Your task to perform on an android device: Search for "razer blackwidow" on bestbuy, select the first entry, and add it to the cart. Image 0: 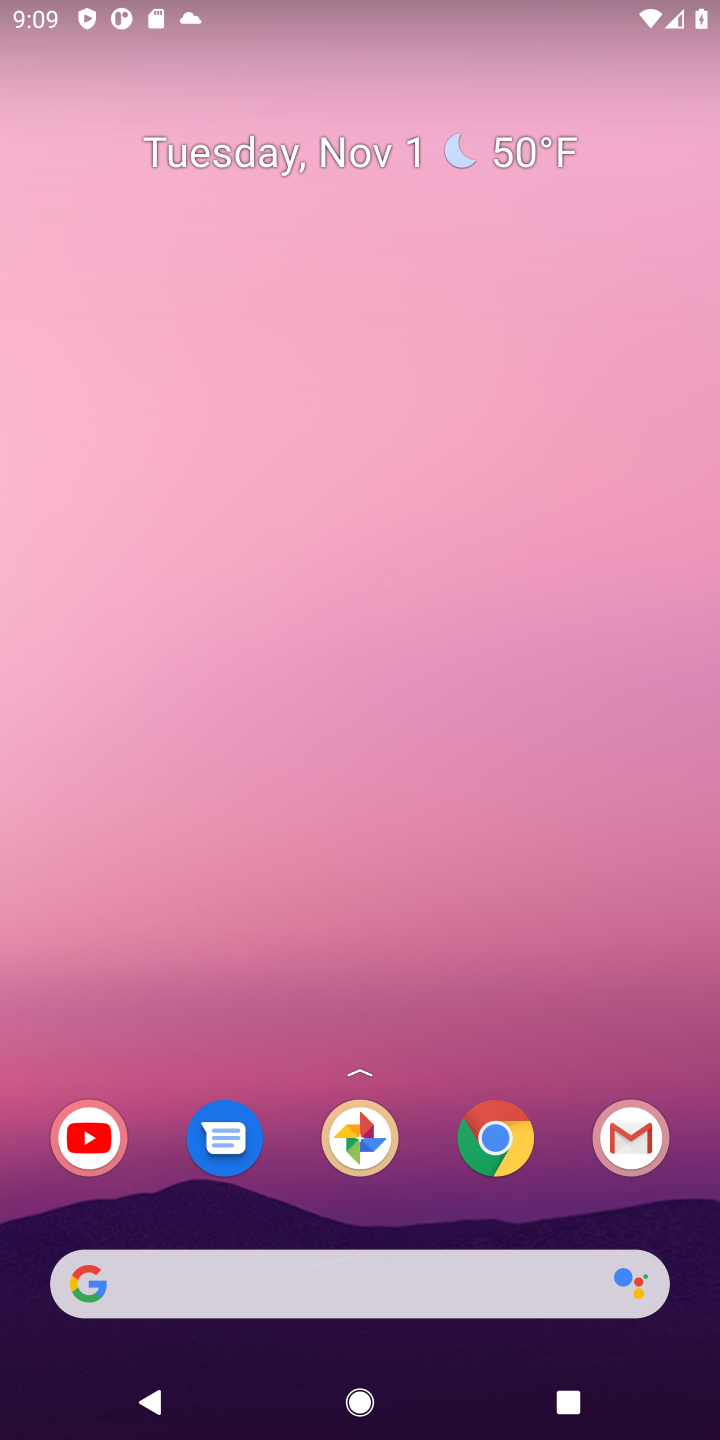
Step 0: click (496, 1141)
Your task to perform on an android device: Search for "razer blackwidow" on bestbuy, select the first entry, and add it to the cart. Image 1: 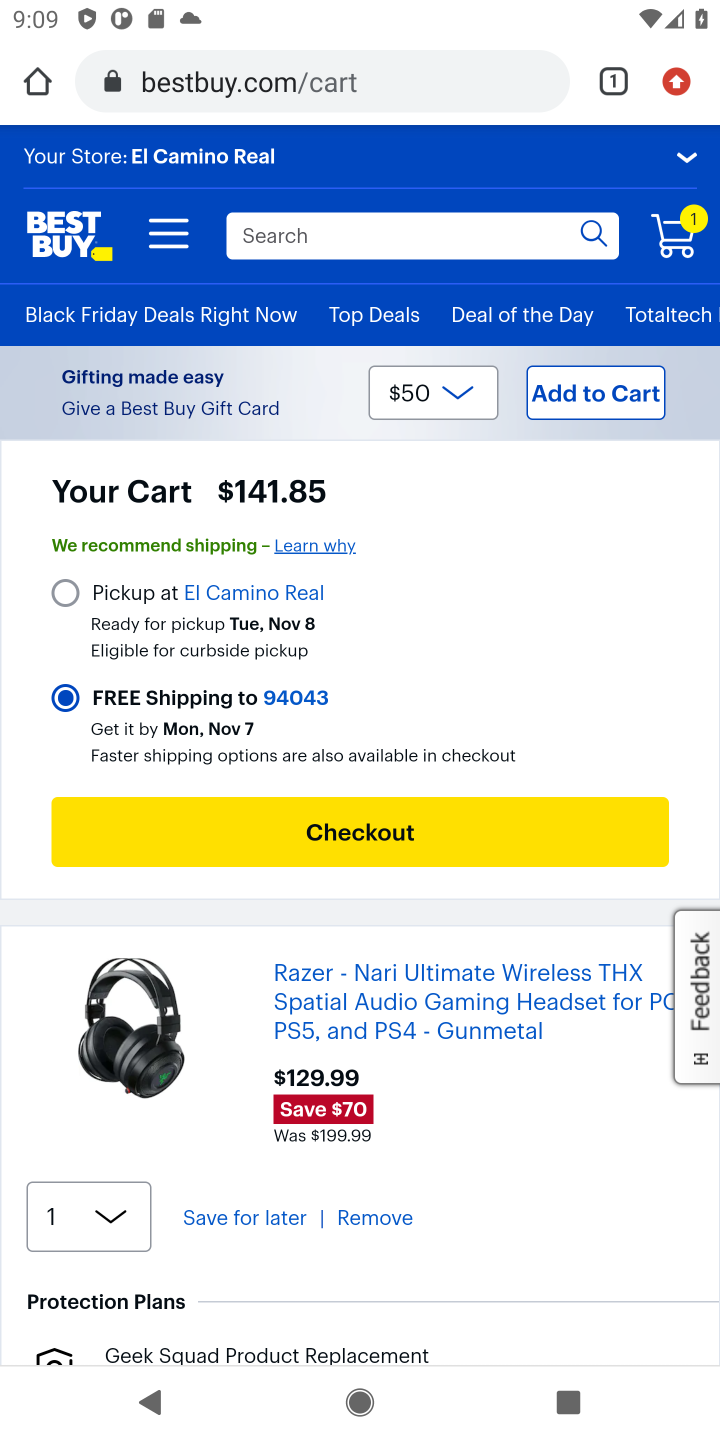
Step 1: click (348, 93)
Your task to perform on an android device: Search for "razer blackwidow" on bestbuy, select the first entry, and add it to the cart. Image 2: 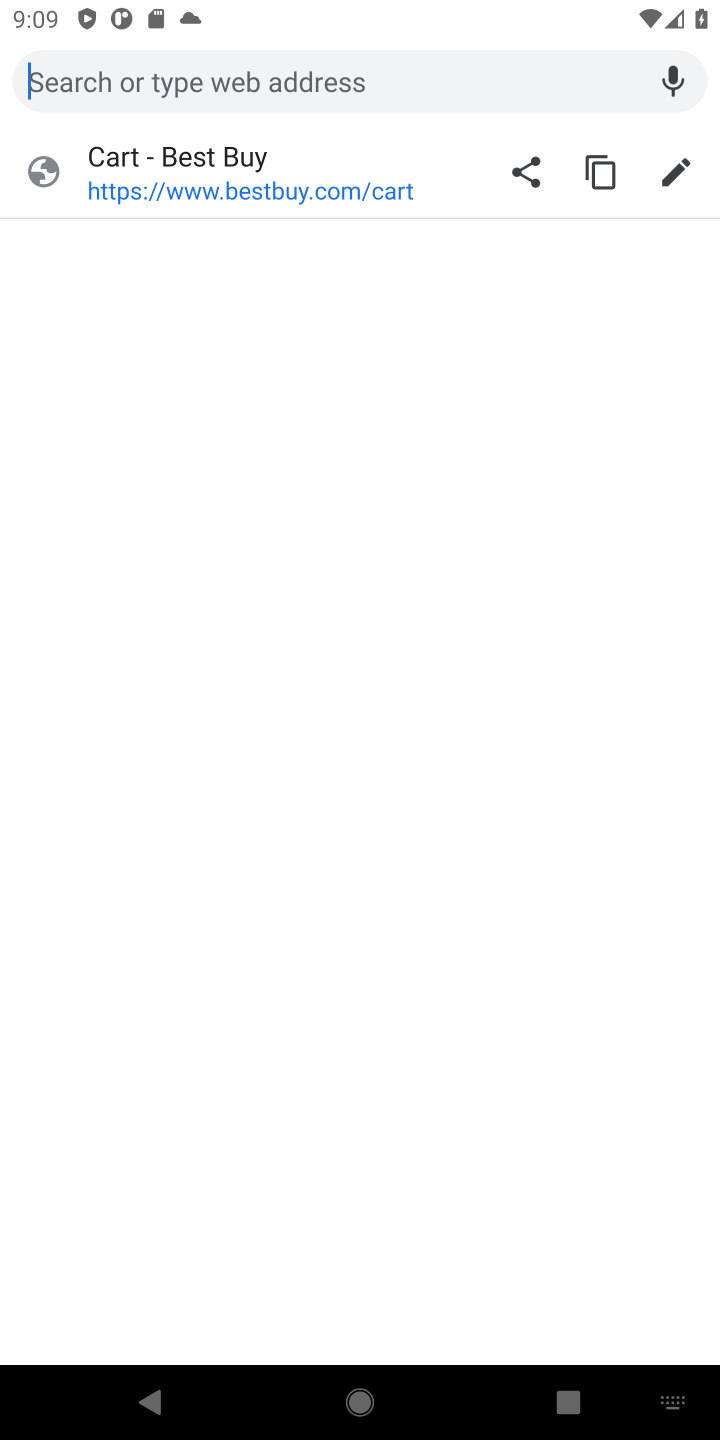
Step 2: type "bestbuy"
Your task to perform on an android device: Search for "razer blackwidow" on bestbuy, select the first entry, and add it to the cart. Image 3: 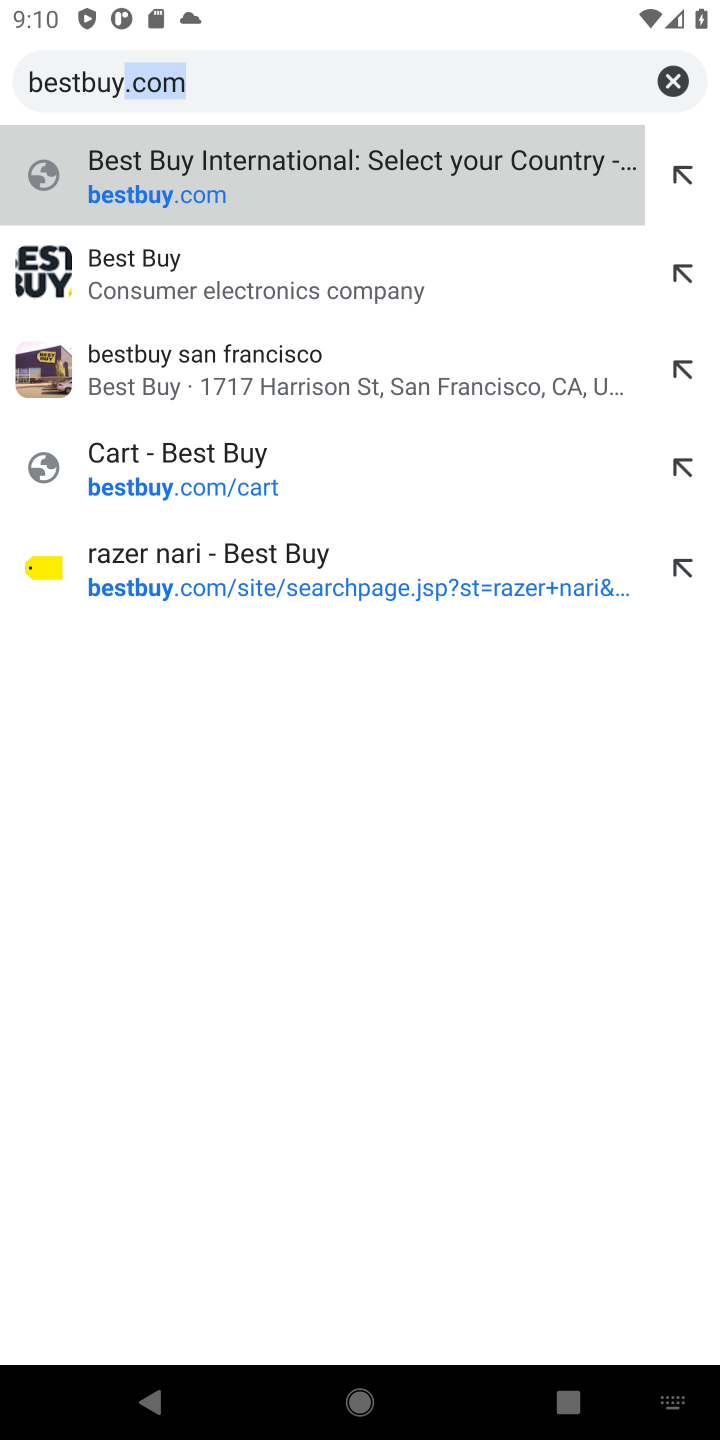
Step 3: click (156, 288)
Your task to perform on an android device: Search for "razer blackwidow" on bestbuy, select the first entry, and add it to the cart. Image 4: 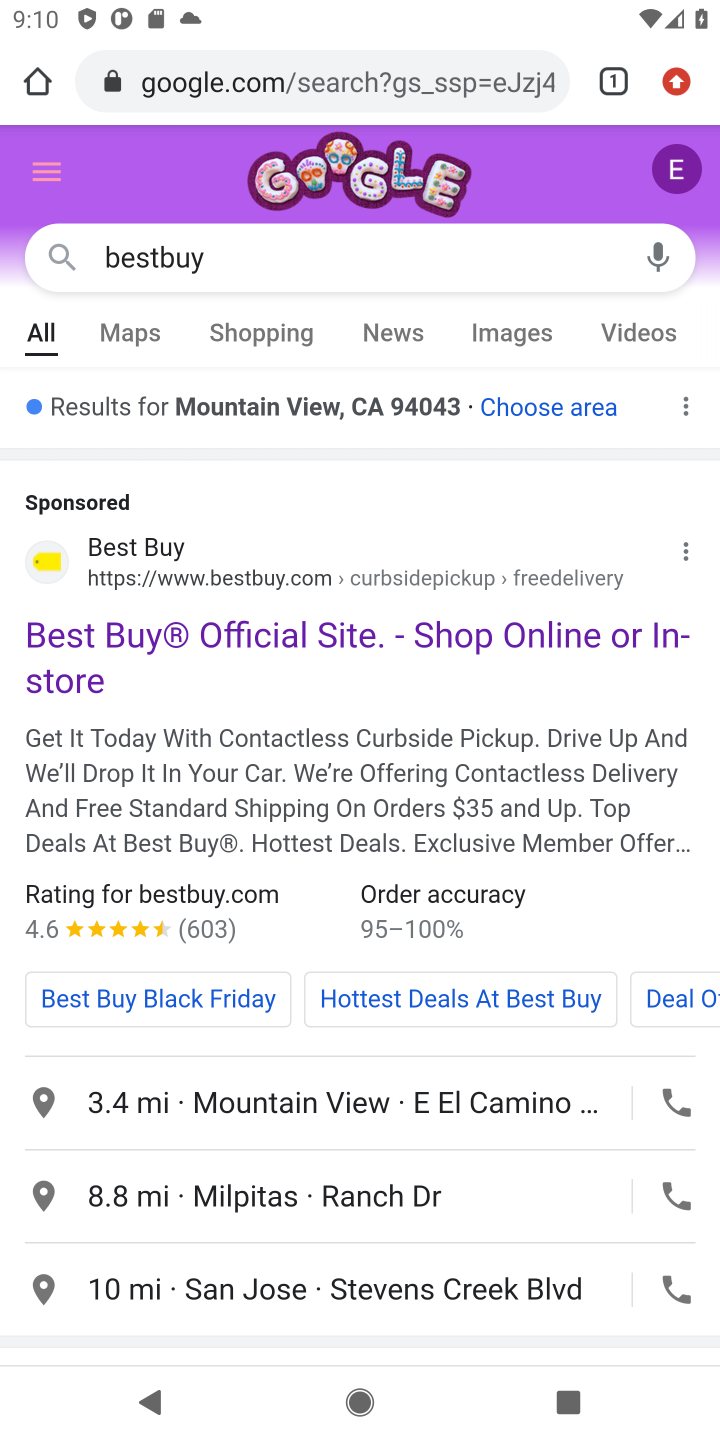
Step 4: drag from (318, 913) to (370, 401)
Your task to perform on an android device: Search for "razer blackwidow" on bestbuy, select the first entry, and add it to the cart. Image 5: 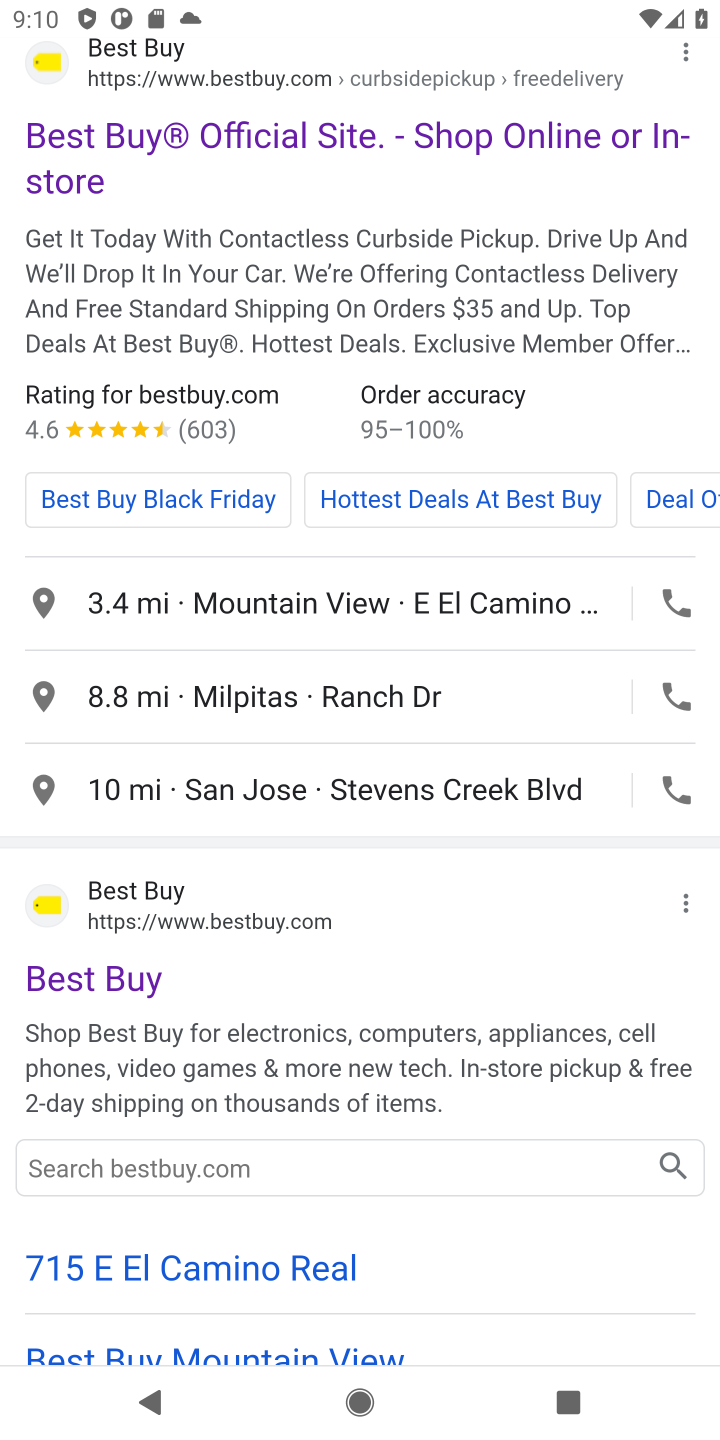
Step 5: click (126, 977)
Your task to perform on an android device: Search for "razer blackwidow" on bestbuy, select the first entry, and add it to the cart. Image 6: 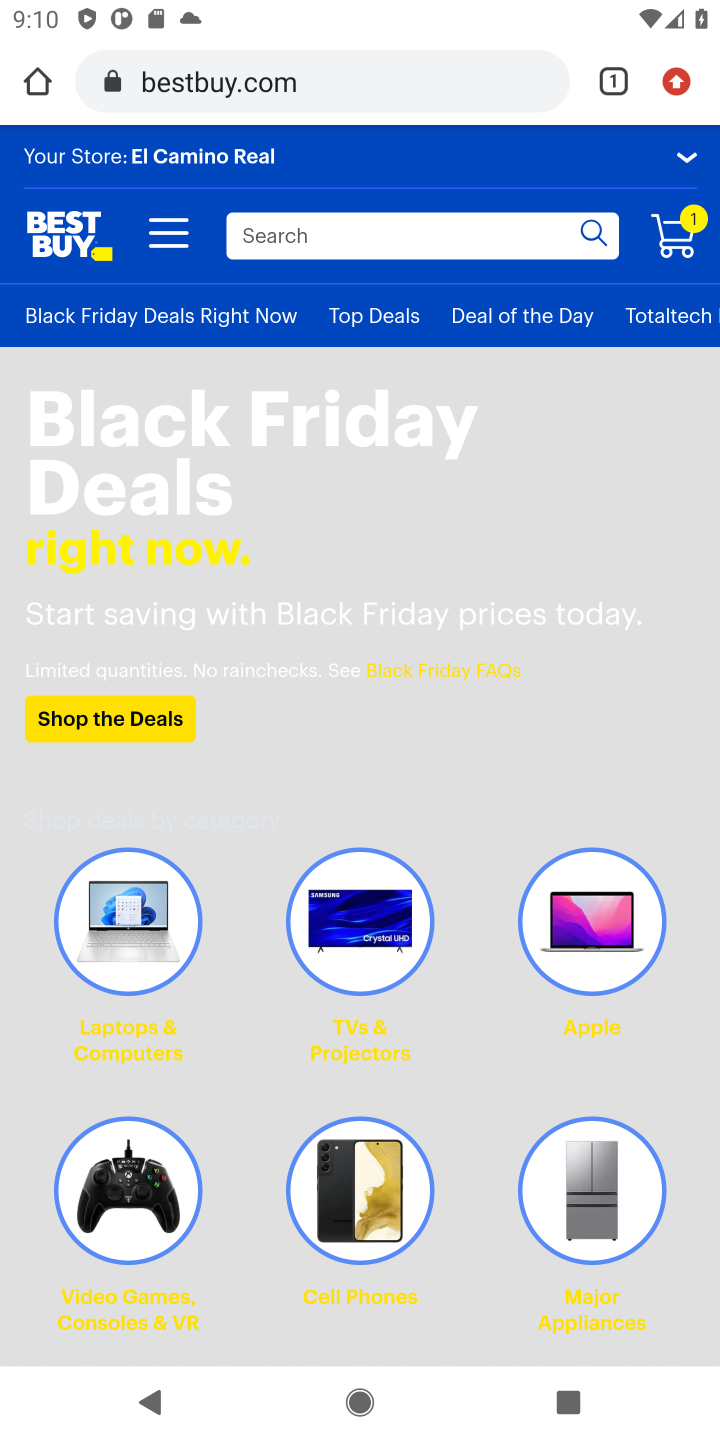
Step 6: click (405, 235)
Your task to perform on an android device: Search for "razer blackwidow" on bestbuy, select the first entry, and add it to the cart. Image 7: 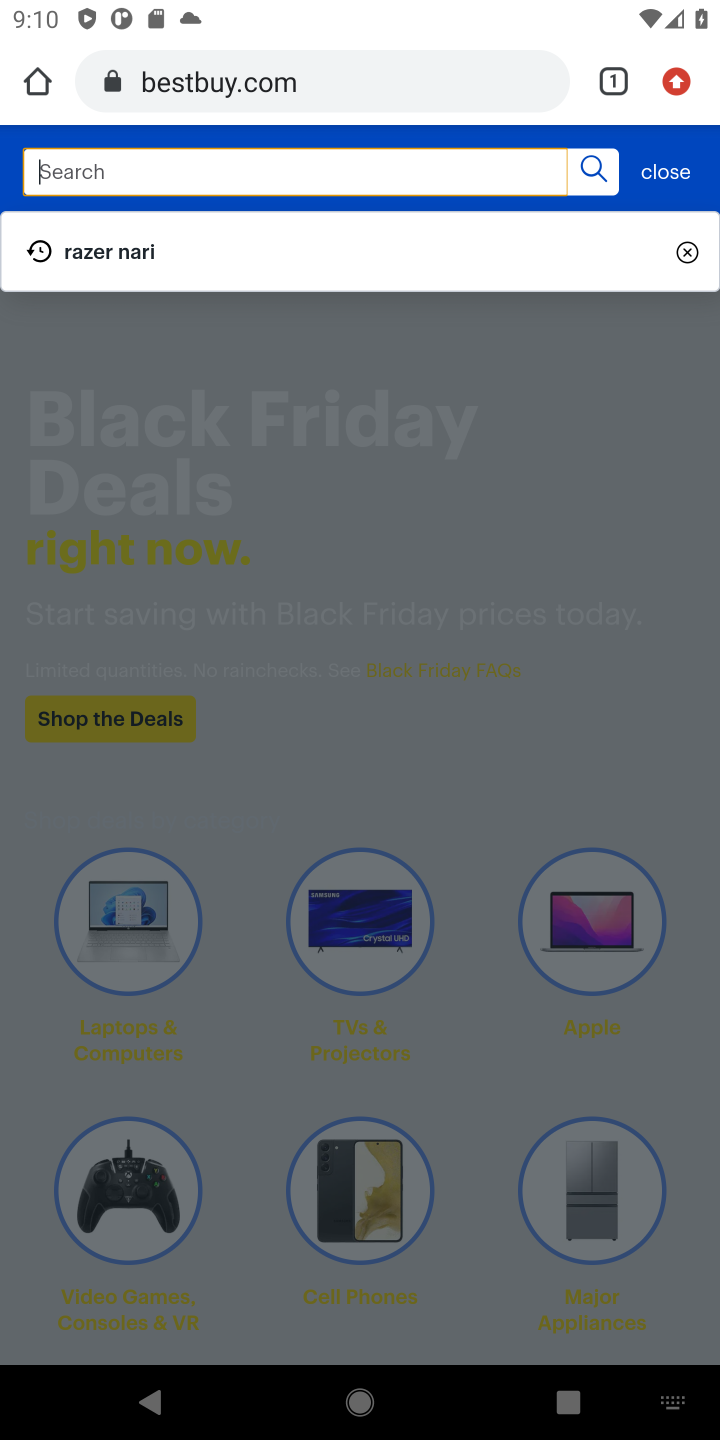
Step 7: type "razer blackwidow"
Your task to perform on an android device: Search for "razer blackwidow" on bestbuy, select the first entry, and add it to the cart. Image 8: 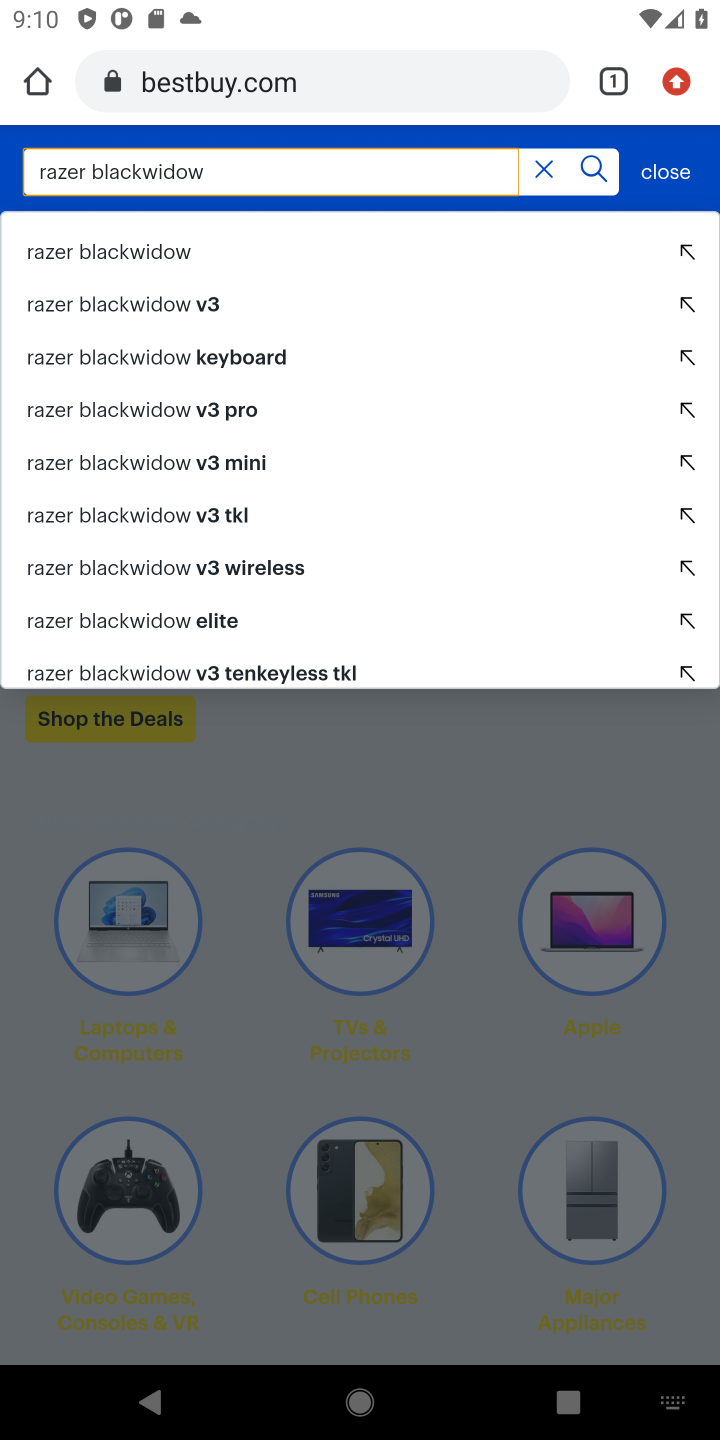
Step 8: click (110, 260)
Your task to perform on an android device: Search for "razer blackwidow" on bestbuy, select the first entry, and add it to the cart. Image 9: 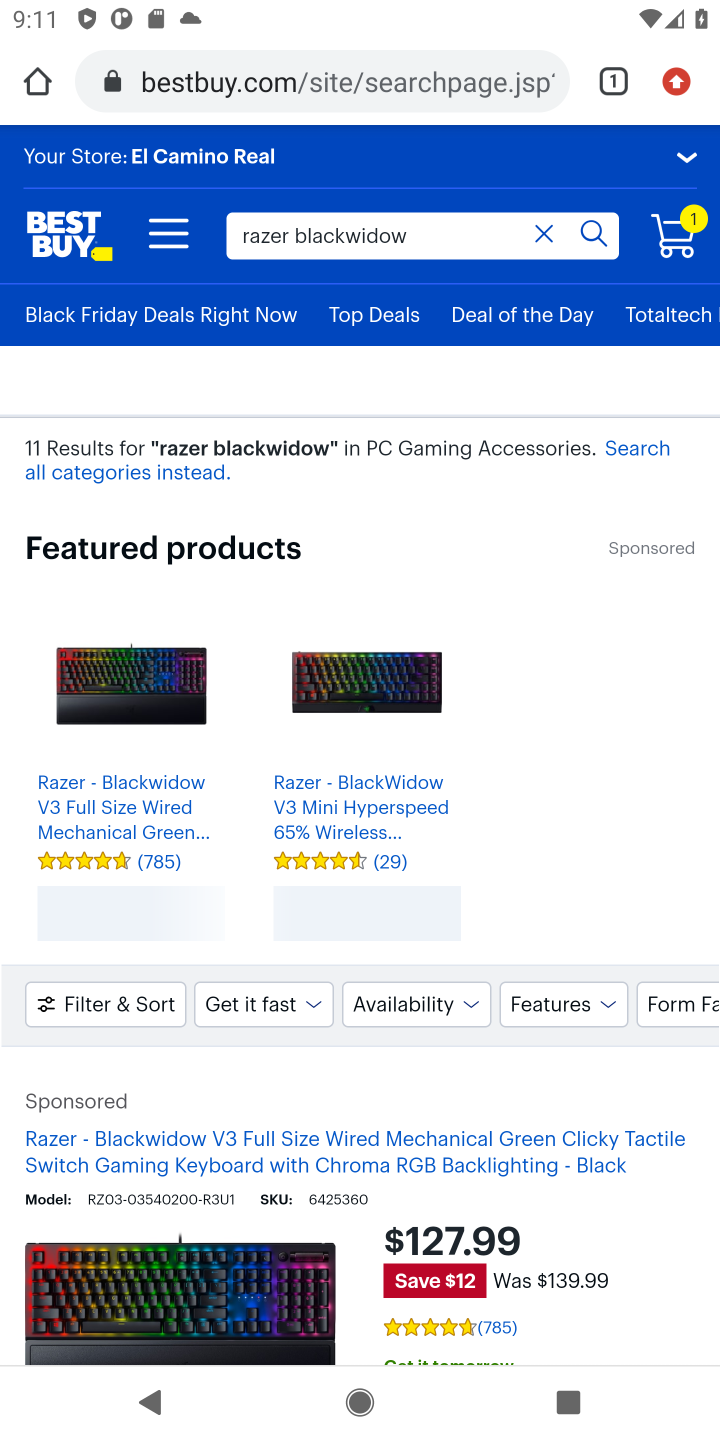
Step 9: click (487, 1161)
Your task to perform on an android device: Search for "razer blackwidow" on bestbuy, select the first entry, and add it to the cart. Image 10: 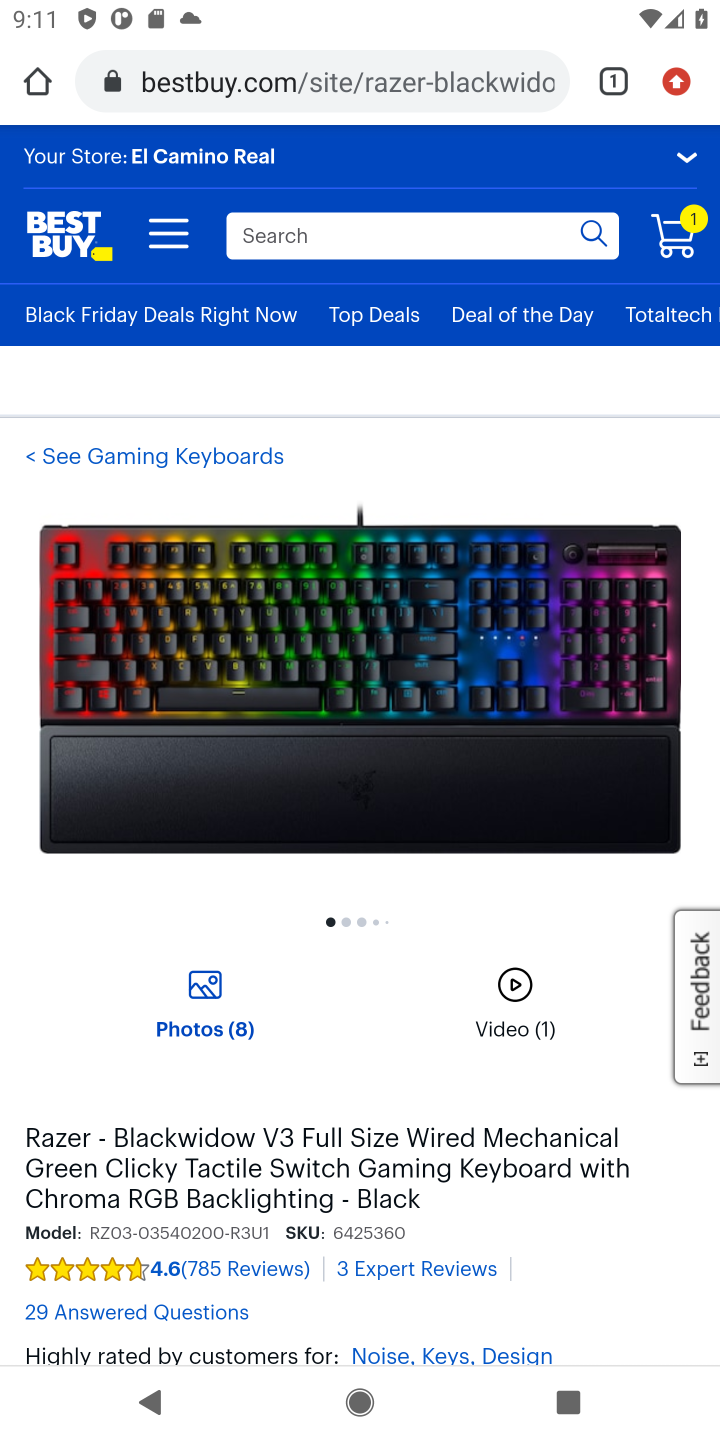
Step 10: drag from (461, 1212) to (451, 582)
Your task to perform on an android device: Search for "razer blackwidow" on bestbuy, select the first entry, and add it to the cart. Image 11: 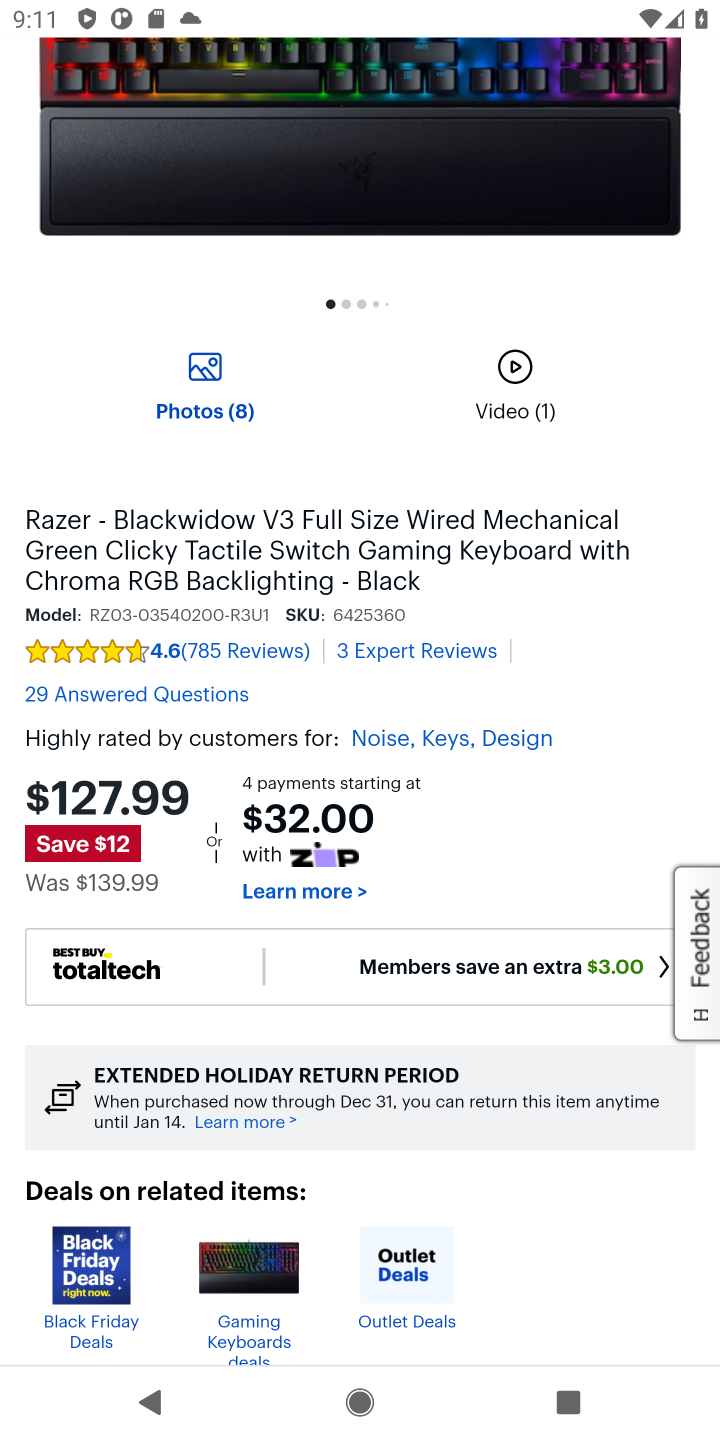
Step 11: drag from (518, 1140) to (498, 560)
Your task to perform on an android device: Search for "razer blackwidow" on bestbuy, select the first entry, and add it to the cart. Image 12: 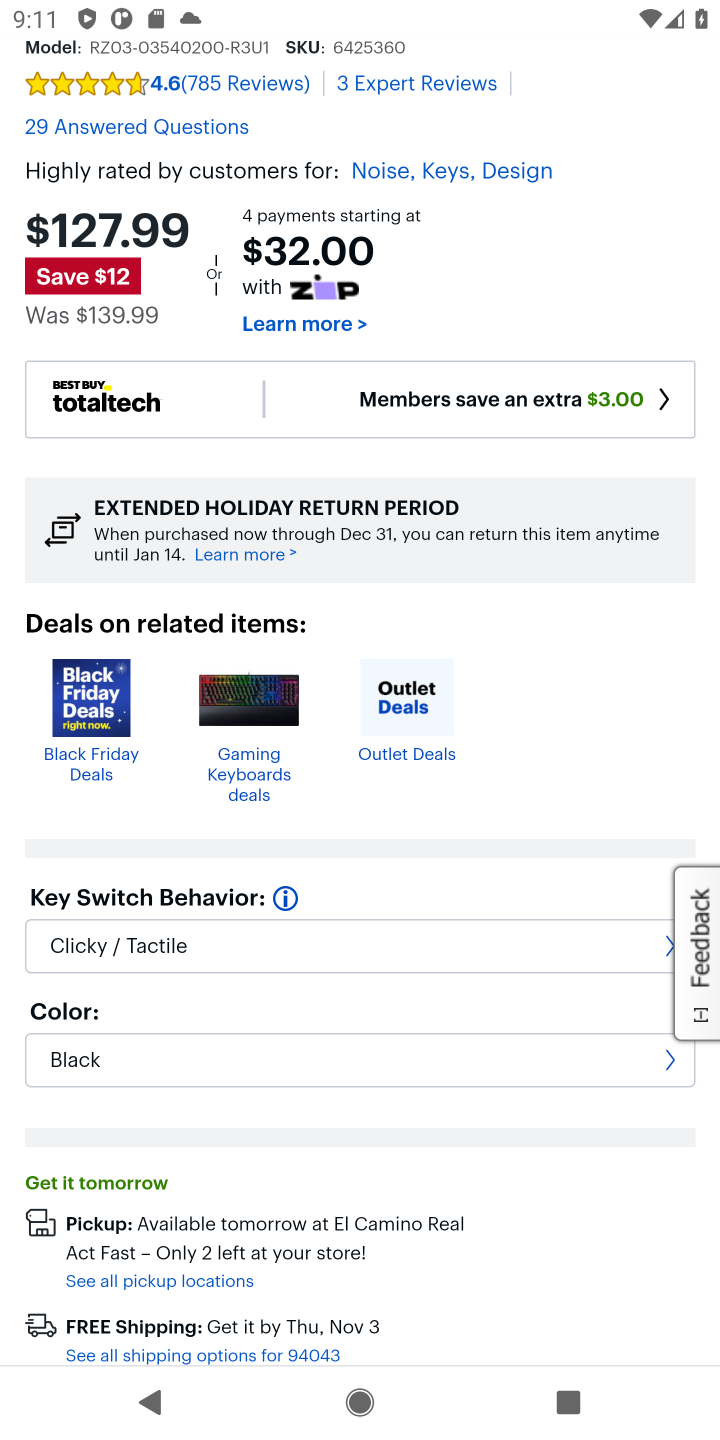
Step 12: drag from (413, 1184) to (447, 659)
Your task to perform on an android device: Search for "razer blackwidow" on bestbuy, select the first entry, and add it to the cart. Image 13: 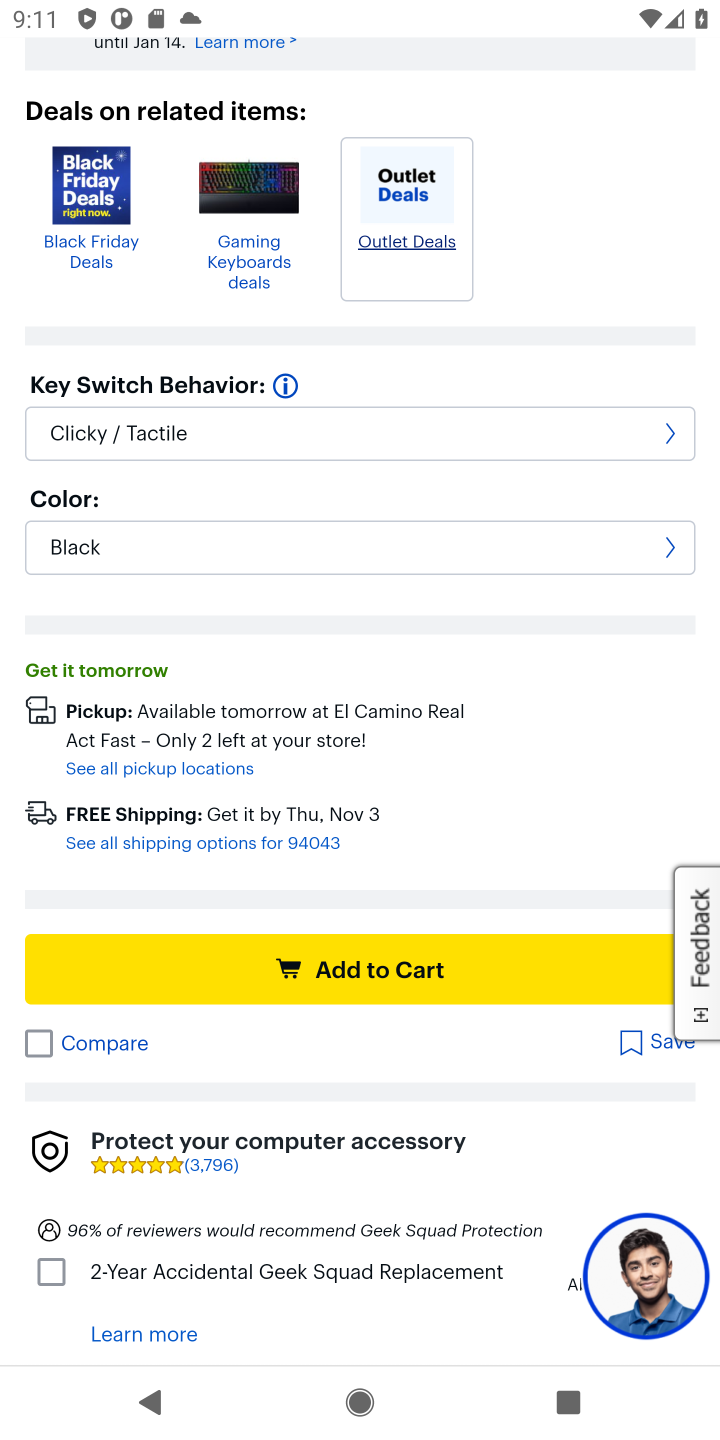
Step 13: click (370, 973)
Your task to perform on an android device: Search for "razer blackwidow" on bestbuy, select the first entry, and add it to the cart. Image 14: 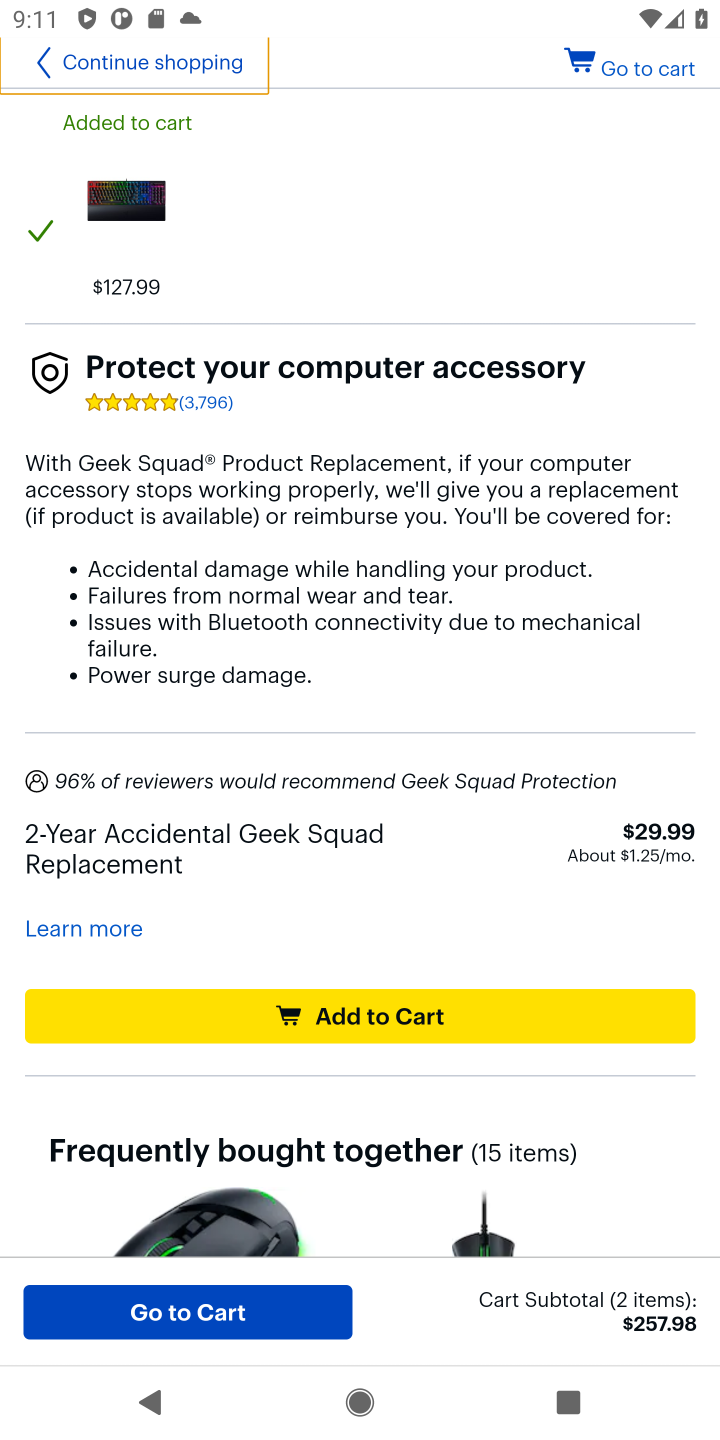
Step 14: click (173, 1317)
Your task to perform on an android device: Search for "razer blackwidow" on bestbuy, select the first entry, and add it to the cart. Image 15: 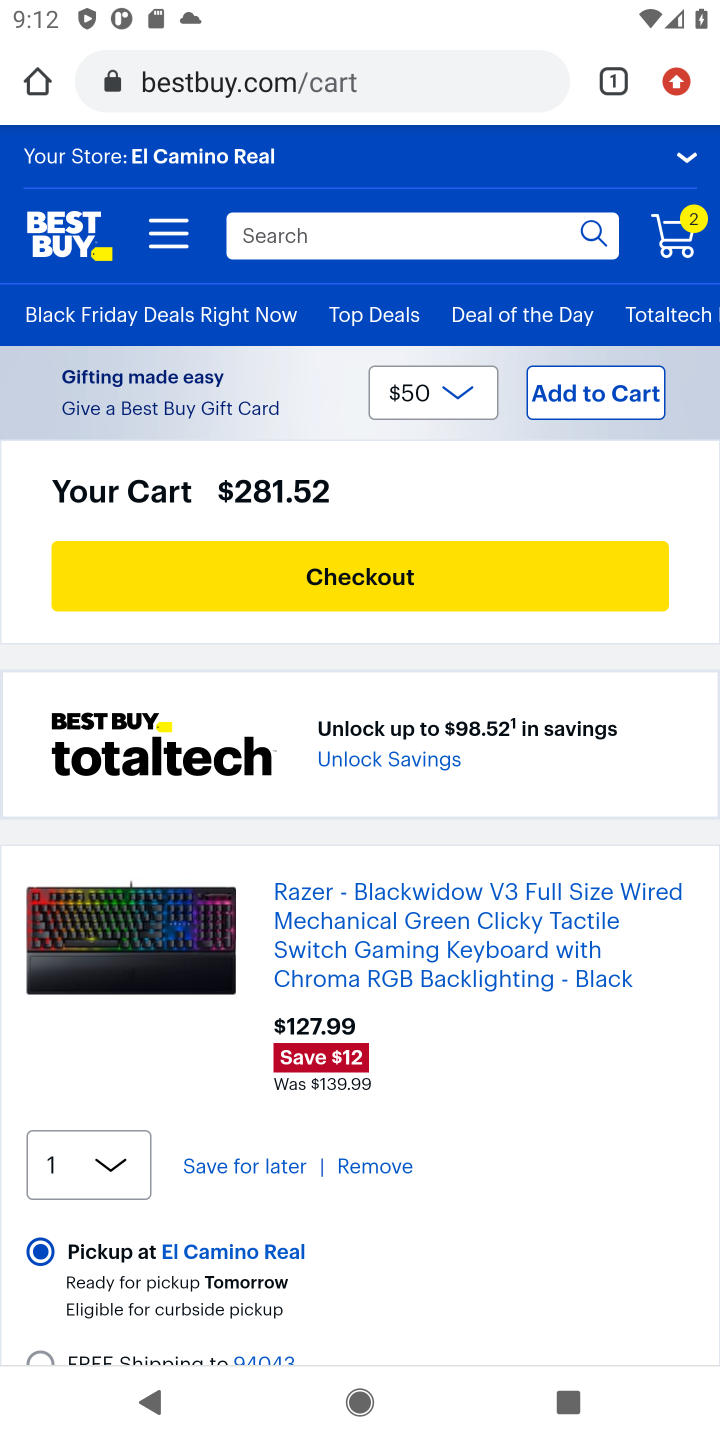
Step 15: task complete